Your task to perform on an android device: open a new tab in the chrome app Image 0: 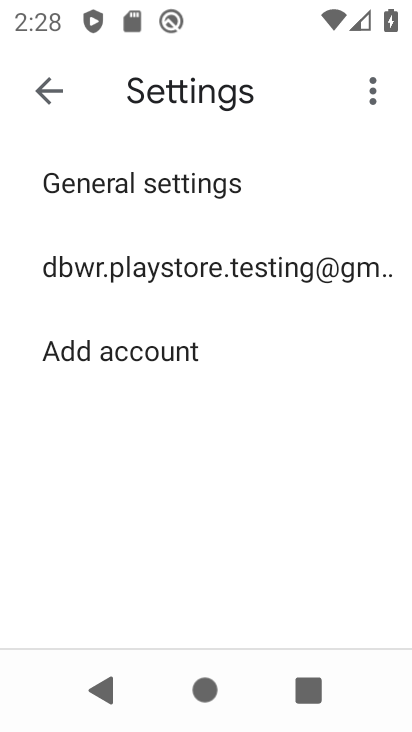
Step 0: press home button
Your task to perform on an android device: open a new tab in the chrome app Image 1: 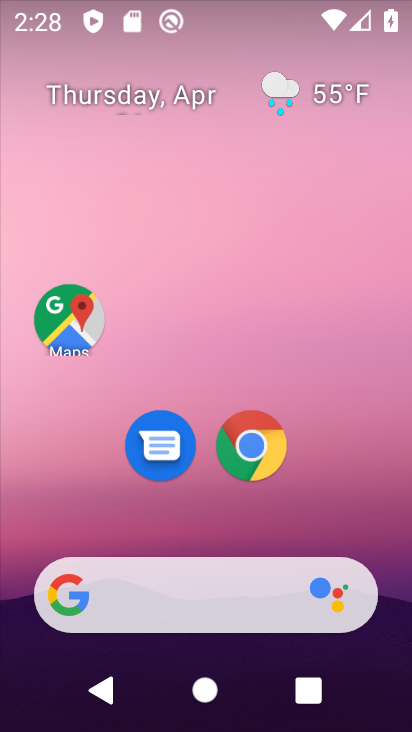
Step 1: click (253, 447)
Your task to perform on an android device: open a new tab in the chrome app Image 2: 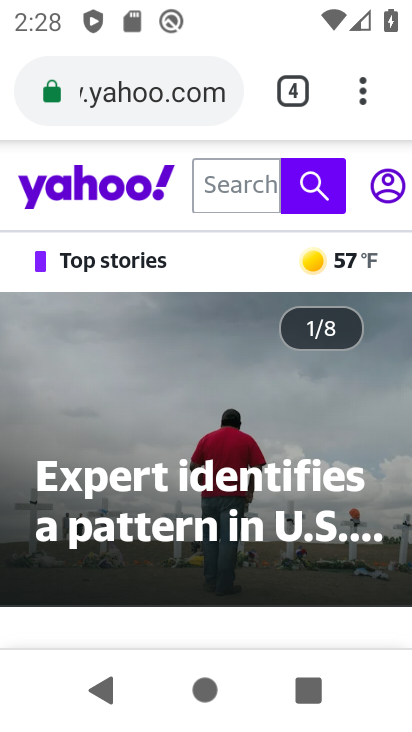
Step 2: task complete